Your task to perform on an android device: turn off wifi Image 0: 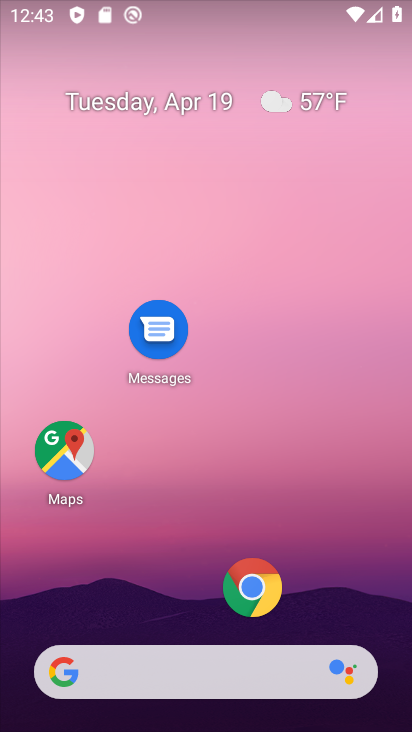
Step 0: click (224, 115)
Your task to perform on an android device: turn off wifi Image 1: 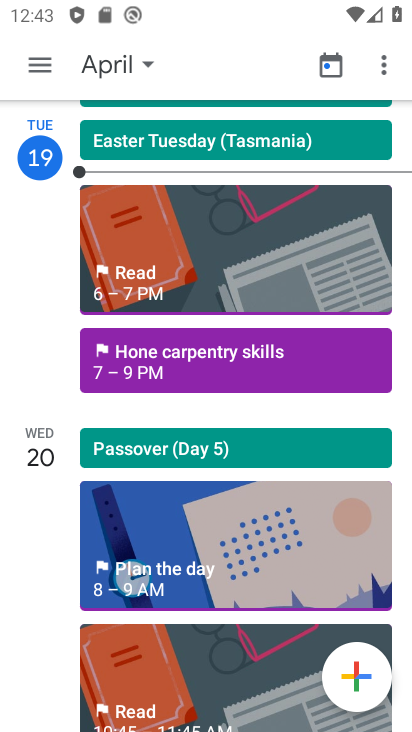
Step 1: press home button
Your task to perform on an android device: turn off wifi Image 2: 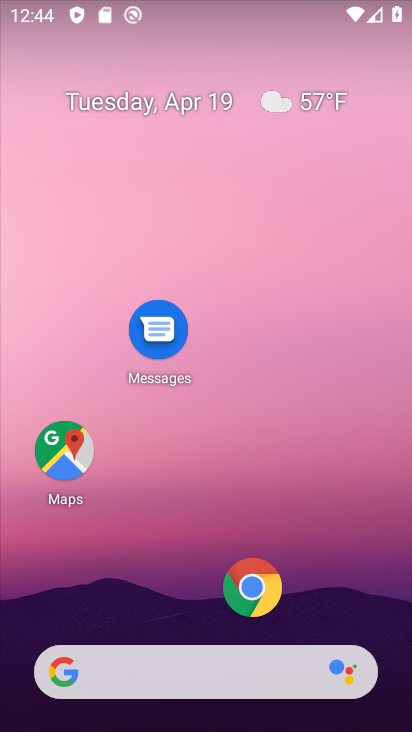
Step 2: drag from (187, 594) to (218, 173)
Your task to perform on an android device: turn off wifi Image 3: 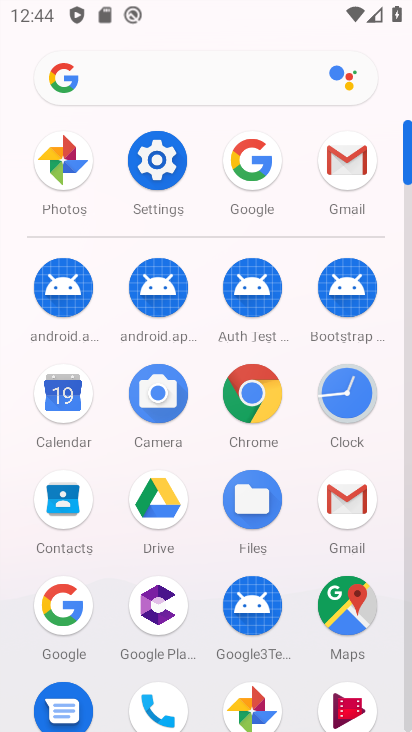
Step 3: click (155, 157)
Your task to perform on an android device: turn off wifi Image 4: 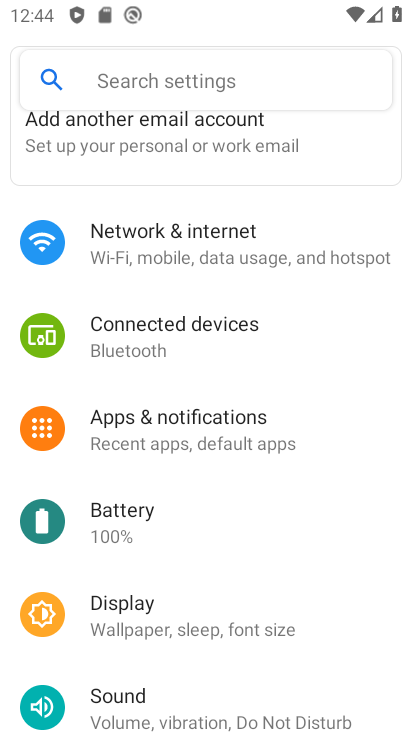
Step 4: click (210, 236)
Your task to perform on an android device: turn off wifi Image 5: 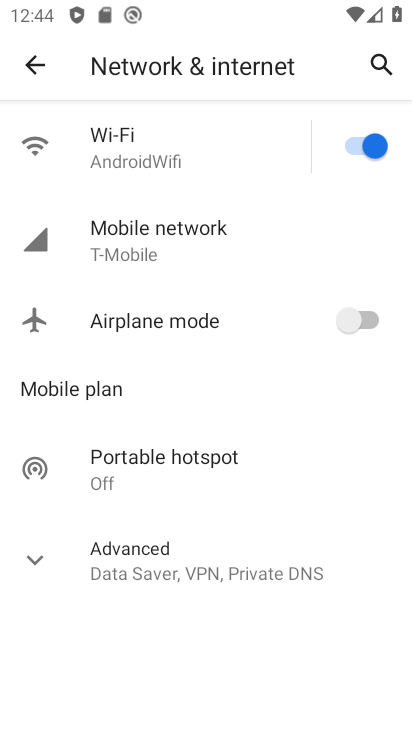
Step 5: click (369, 143)
Your task to perform on an android device: turn off wifi Image 6: 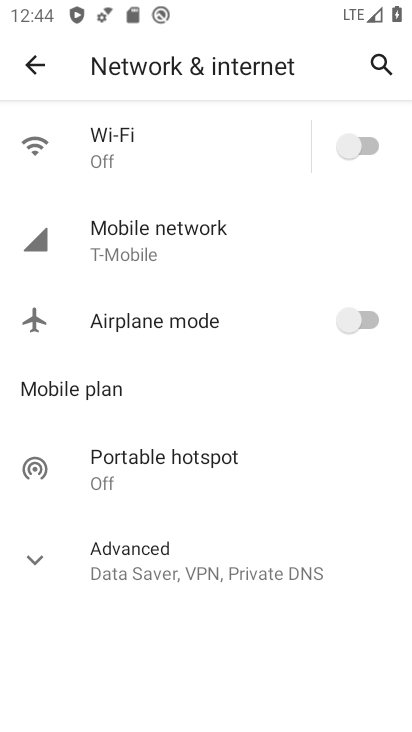
Step 6: task complete